Your task to perform on an android device: Search for seafood restaurants on Google Maps Image 0: 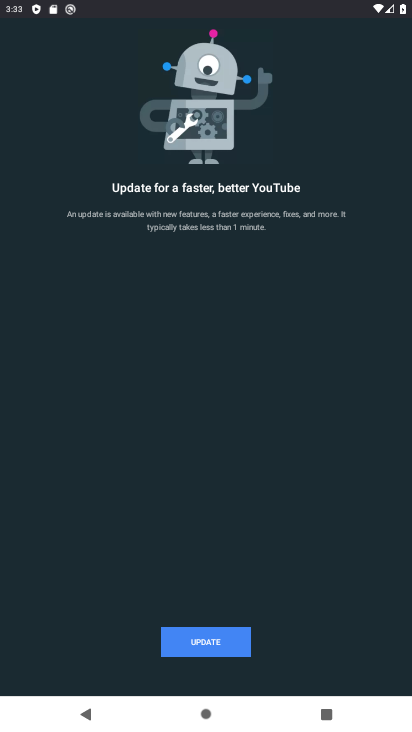
Step 0: press home button
Your task to perform on an android device: Search for seafood restaurants on Google Maps Image 1: 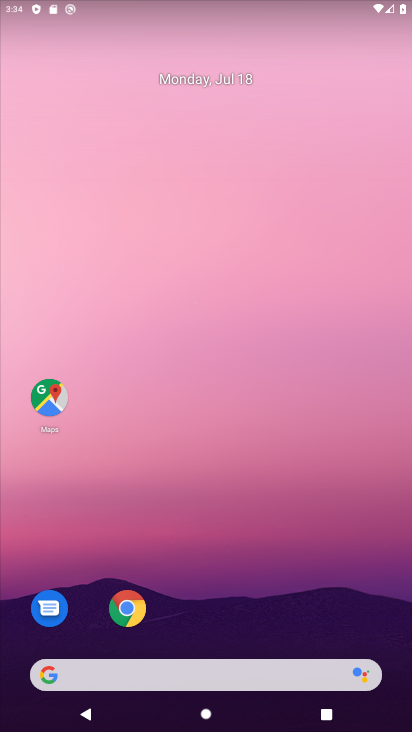
Step 1: click (58, 395)
Your task to perform on an android device: Search for seafood restaurants on Google Maps Image 2: 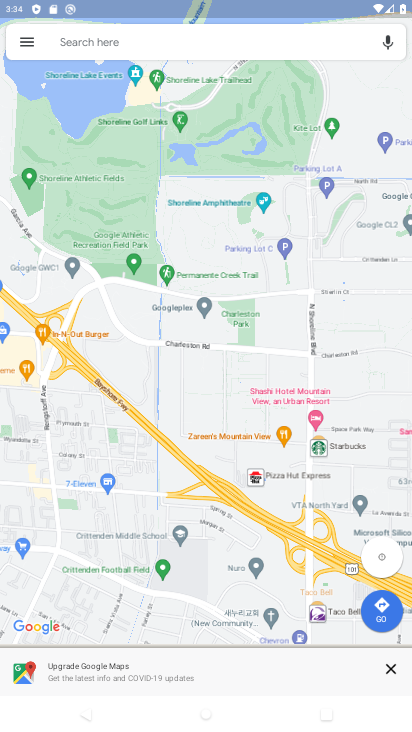
Step 2: click (72, 43)
Your task to perform on an android device: Search for seafood restaurants on Google Maps Image 3: 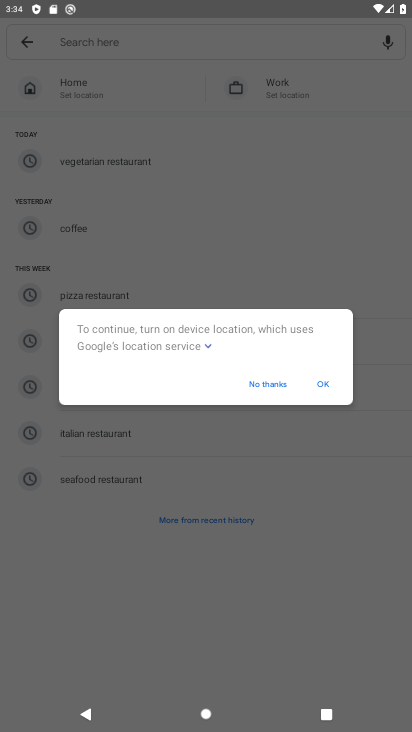
Step 3: click (326, 385)
Your task to perform on an android device: Search for seafood restaurants on Google Maps Image 4: 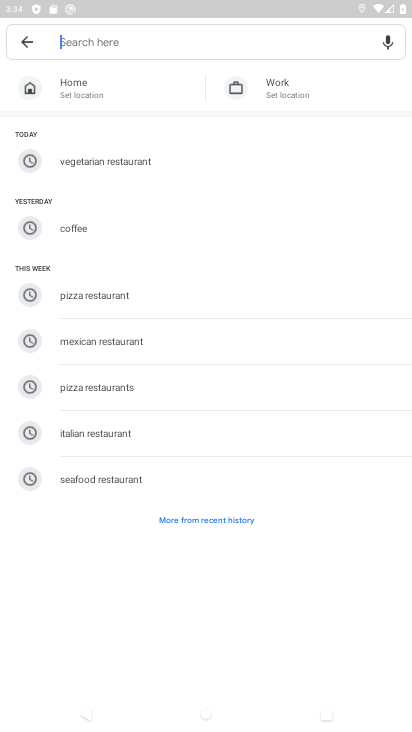
Step 4: type "seafood restaurants"
Your task to perform on an android device: Search for seafood restaurants on Google Maps Image 5: 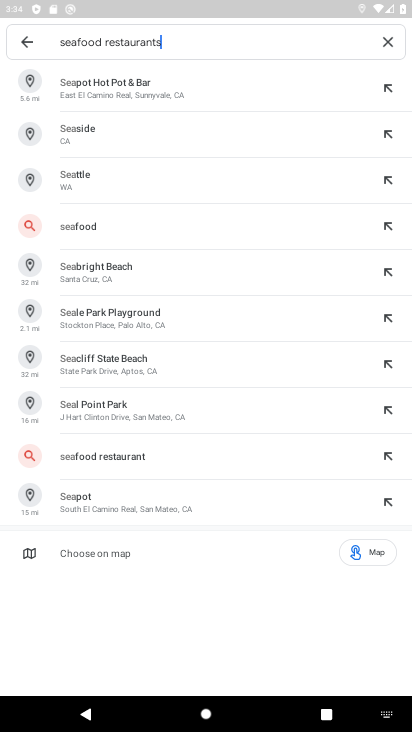
Step 5: press enter
Your task to perform on an android device: Search for seafood restaurants on Google Maps Image 6: 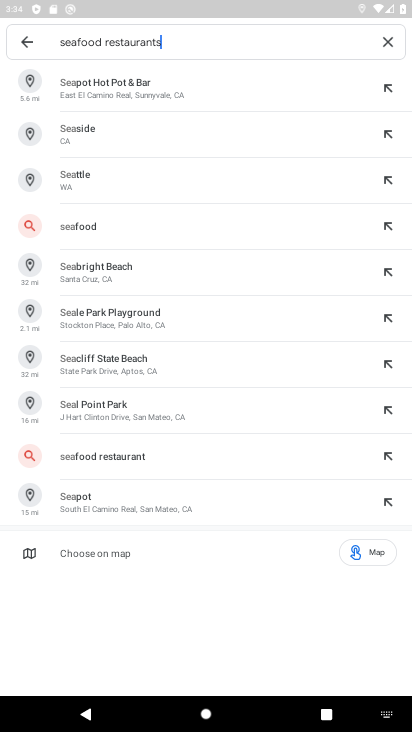
Step 6: type ""
Your task to perform on an android device: Search for seafood restaurants on Google Maps Image 7: 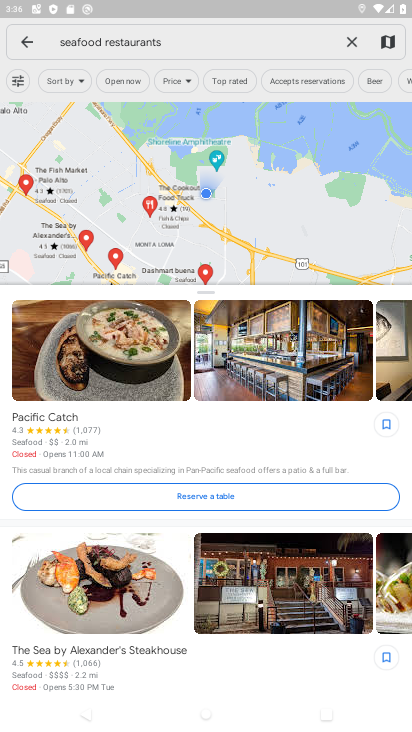
Step 7: task complete